Your task to perform on an android device: change notification settings in the gmail app Image 0: 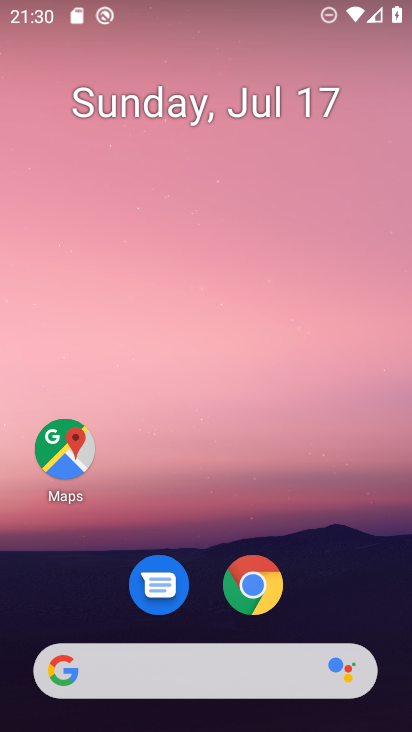
Step 0: drag from (214, 679) to (374, 90)
Your task to perform on an android device: change notification settings in the gmail app Image 1: 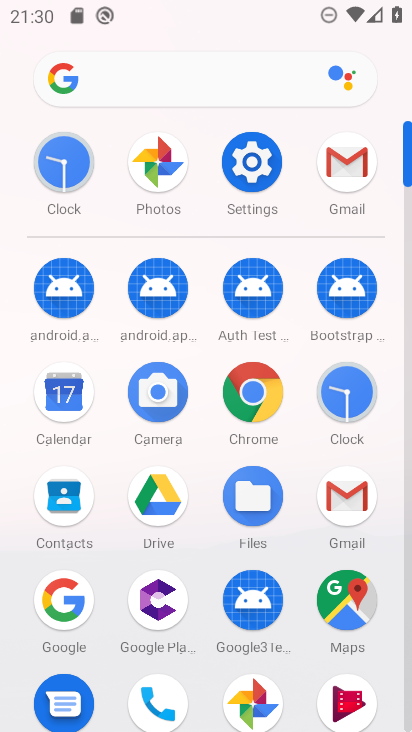
Step 1: click (342, 174)
Your task to perform on an android device: change notification settings in the gmail app Image 2: 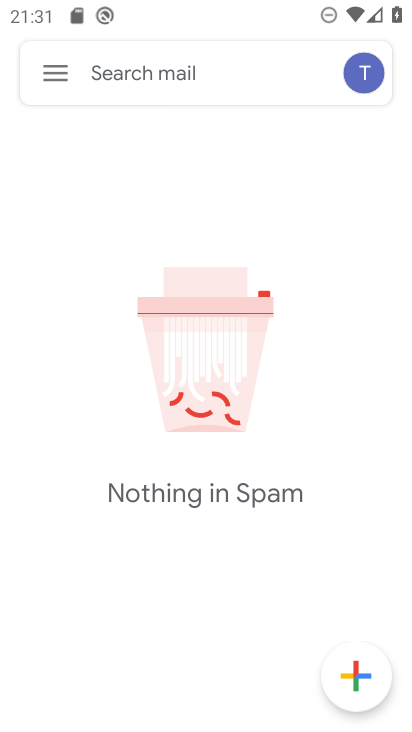
Step 2: click (56, 71)
Your task to perform on an android device: change notification settings in the gmail app Image 3: 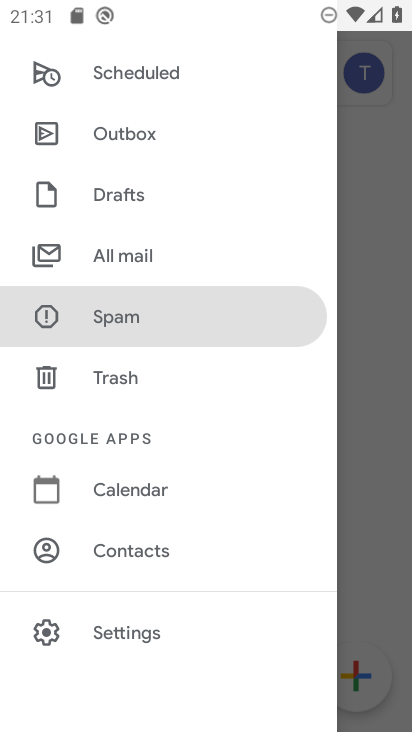
Step 3: click (121, 636)
Your task to perform on an android device: change notification settings in the gmail app Image 4: 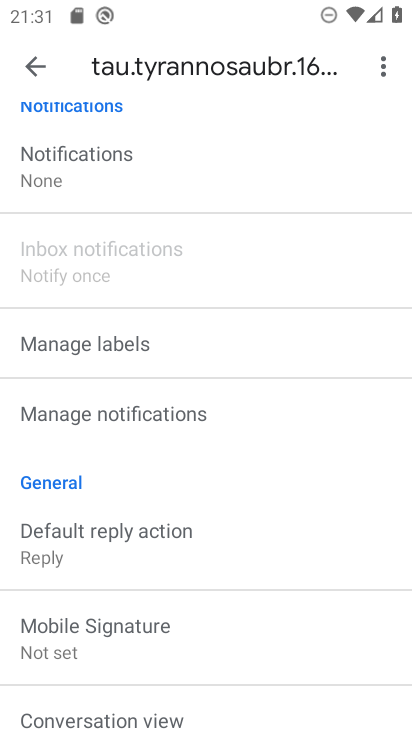
Step 4: click (80, 174)
Your task to perform on an android device: change notification settings in the gmail app Image 5: 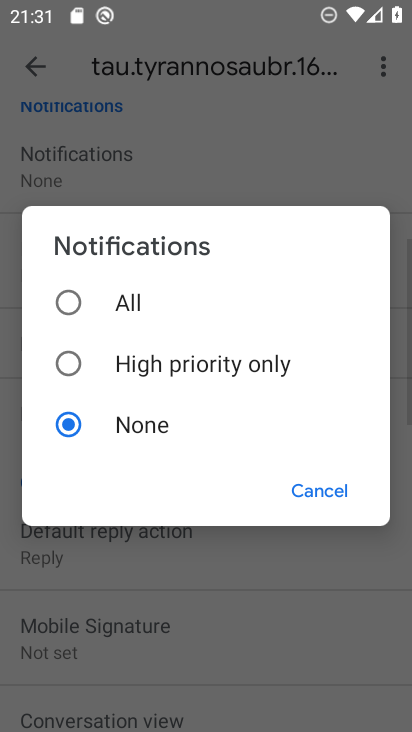
Step 5: click (72, 307)
Your task to perform on an android device: change notification settings in the gmail app Image 6: 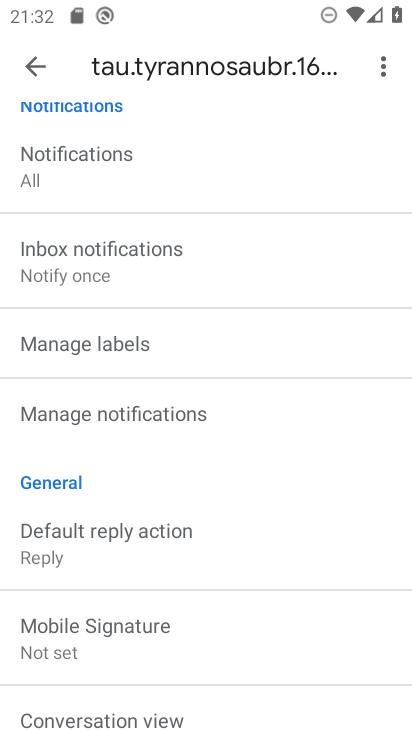
Step 6: task complete